Your task to perform on an android device: make emails show in primary in the gmail app Image 0: 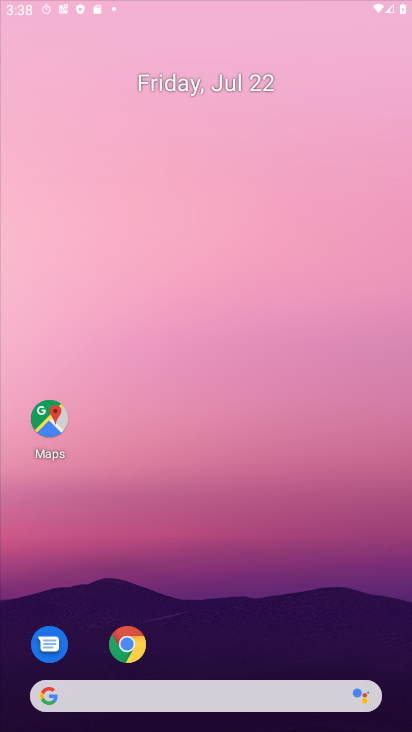
Step 0: press home button
Your task to perform on an android device: make emails show in primary in the gmail app Image 1: 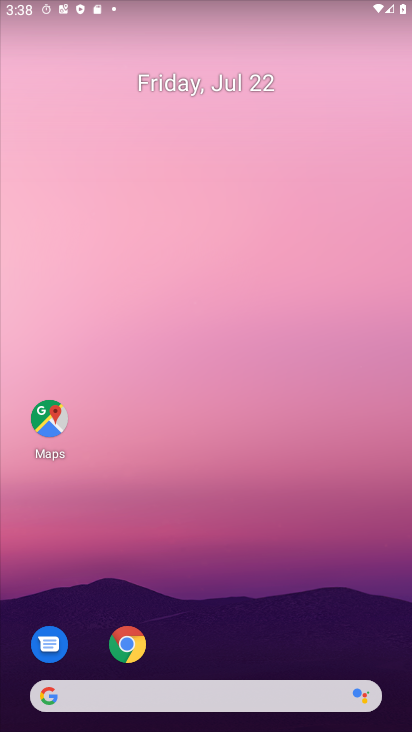
Step 1: drag from (248, 616) to (252, 177)
Your task to perform on an android device: make emails show in primary in the gmail app Image 2: 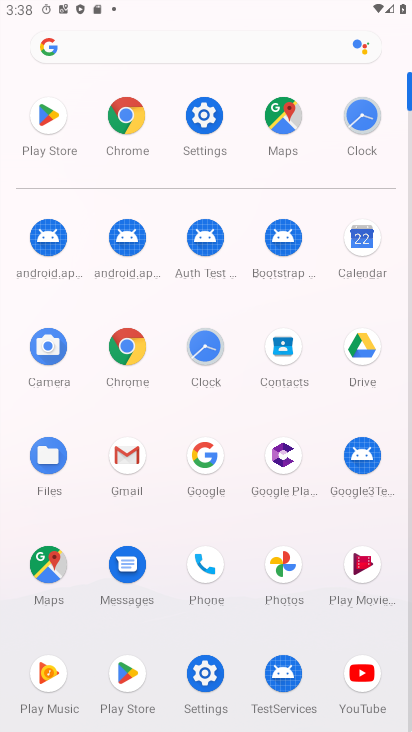
Step 2: click (130, 455)
Your task to perform on an android device: make emails show in primary in the gmail app Image 3: 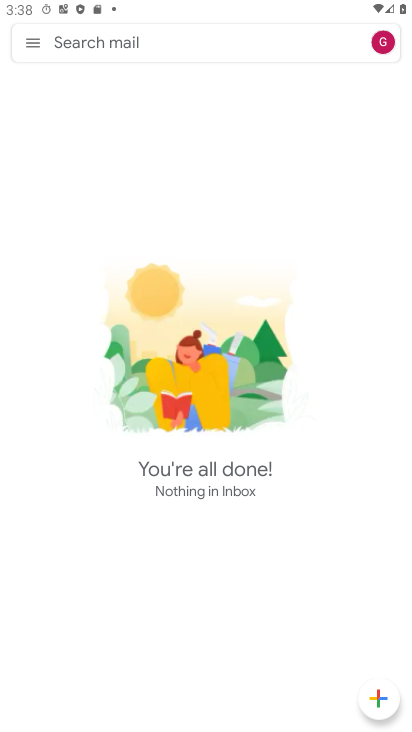
Step 3: click (27, 41)
Your task to perform on an android device: make emails show in primary in the gmail app Image 4: 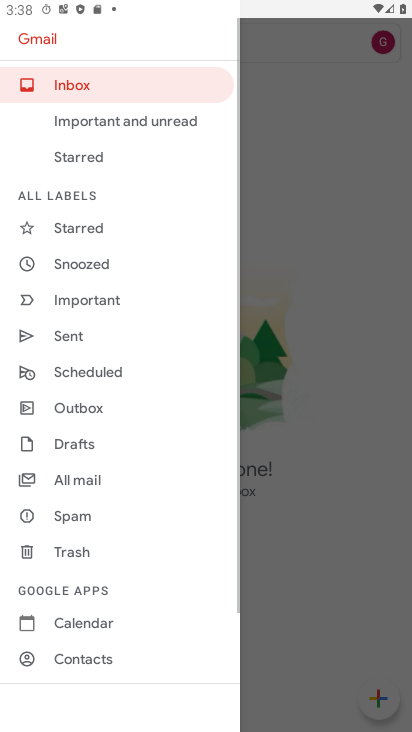
Step 4: drag from (192, 556) to (187, 26)
Your task to perform on an android device: make emails show in primary in the gmail app Image 5: 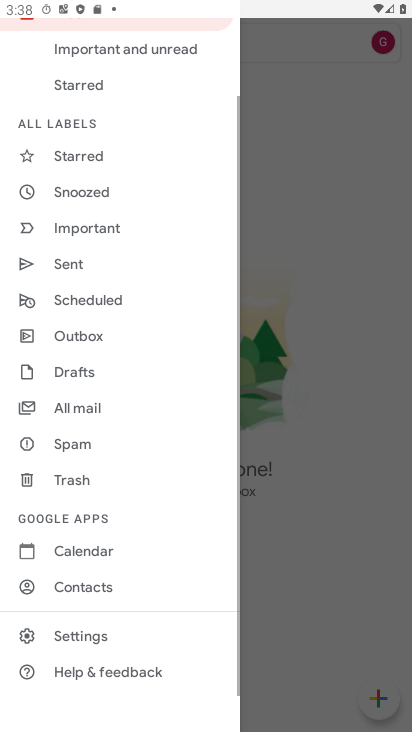
Step 5: click (74, 632)
Your task to perform on an android device: make emails show in primary in the gmail app Image 6: 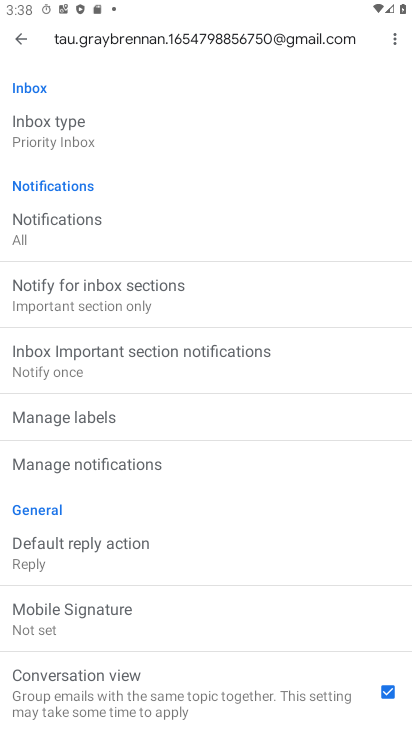
Step 6: task complete